Your task to perform on an android device: Go to Wikipedia Image 0: 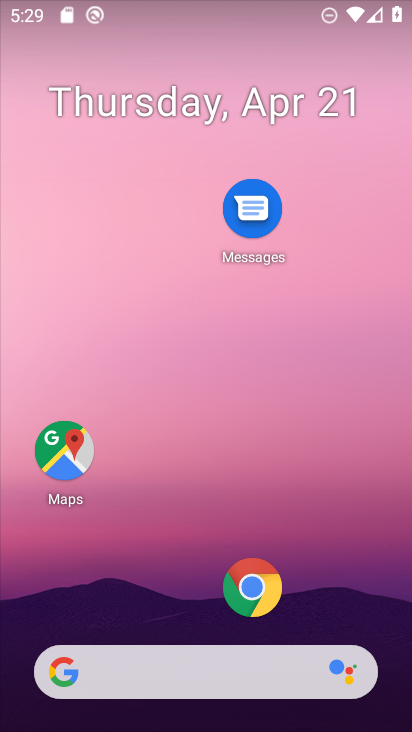
Step 0: click (250, 581)
Your task to perform on an android device: Go to Wikipedia Image 1: 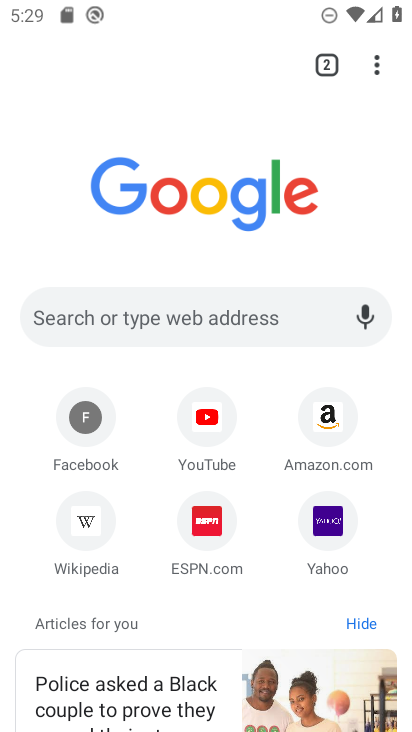
Step 1: click (88, 520)
Your task to perform on an android device: Go to Wikipedia Image 2: 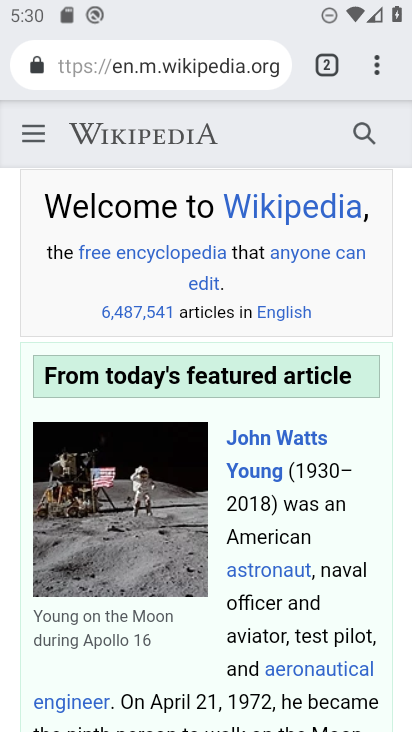
Step 2: click (239, 327)
Your task to perform on an android device: Go to Wikipedia Image 3: 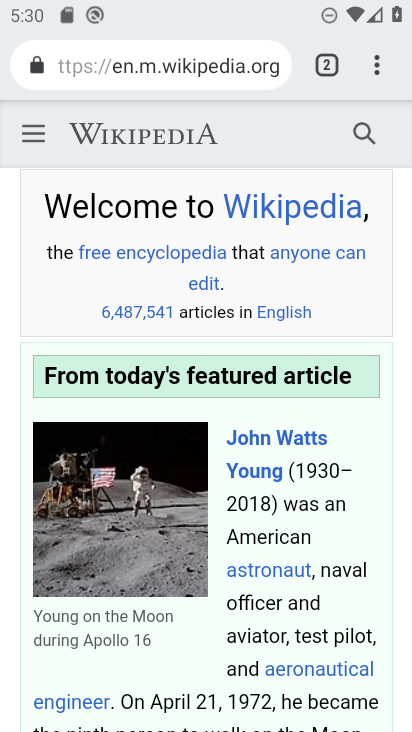
Step 3: task complete